Your task to perform on an android device: Open location settings Image 0: 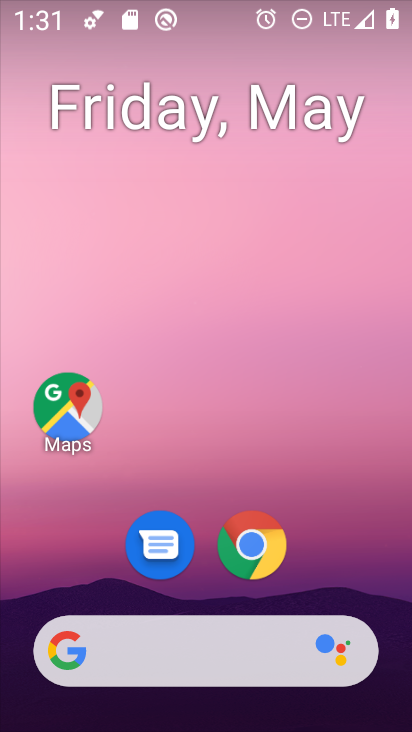
Step 0: drag from (349, 533) to (299, 232)
Your task to perform on an android device: Open location settings Image 1: 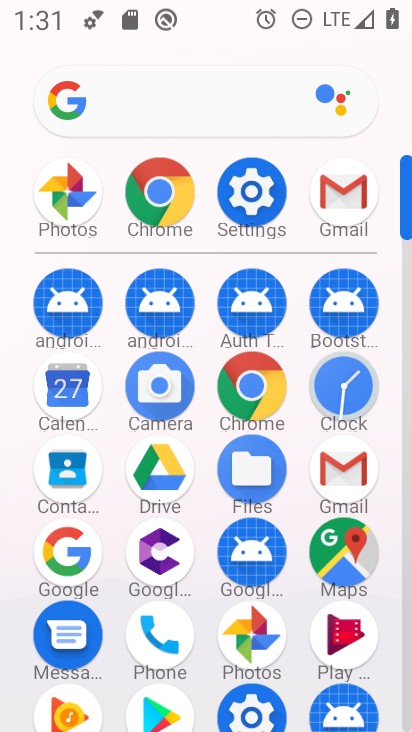
Step 1: click (239, 191)
Your task to perform on an android device: Open location settings Image 2: 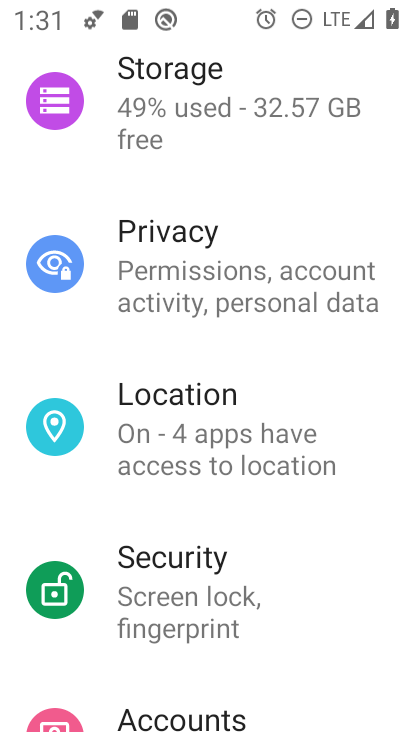
Step 2: click (249, 414)
Your task to perform on an android device: Open location settings Image 3: 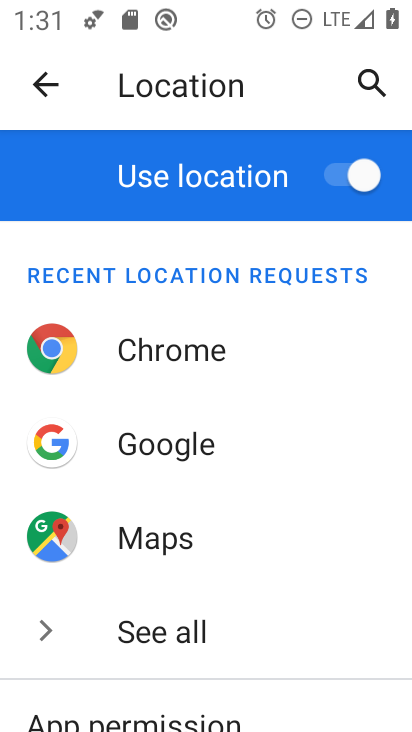
Step 3: task complete